Your task to perform on an android device: turn on bluetooth scan Image 0: 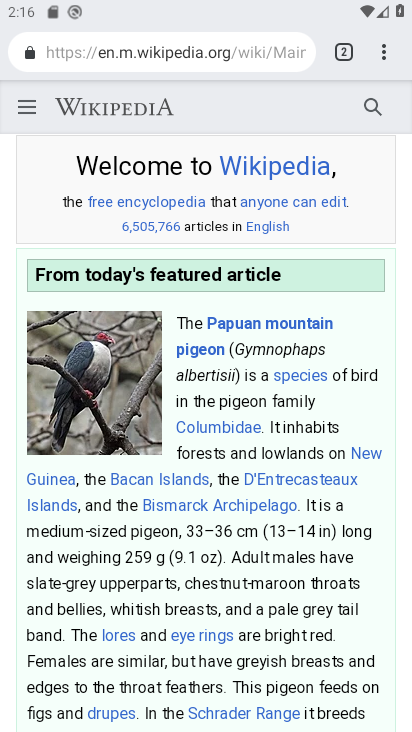
Step 0: press home button
Your task to perform on an android device: turn on bluetooth scan Image 1: 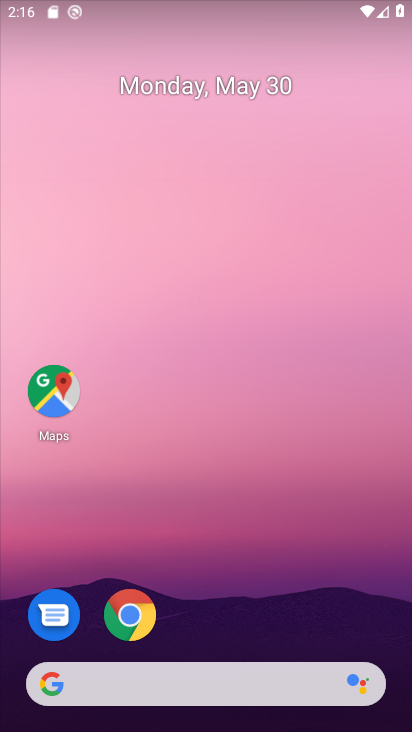
Step 1: drag from (224, 610) to (255, 0)
Your task to perform on an android device: turn on bluetooth scan Image 2: 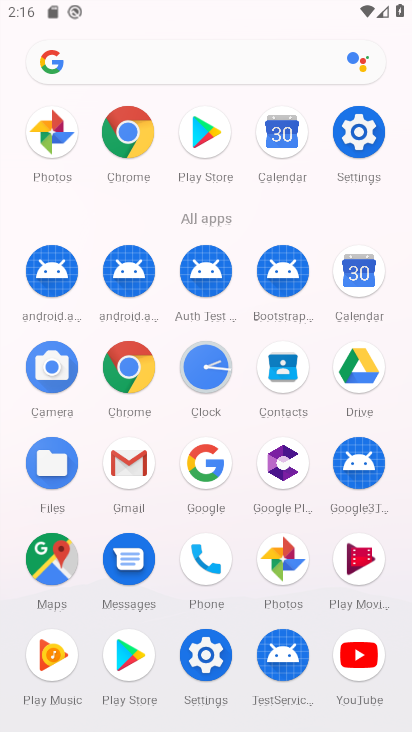
Step 2: click (352, 128)
Your task to perform on an android device: turn on bluetooth scan Image 3: 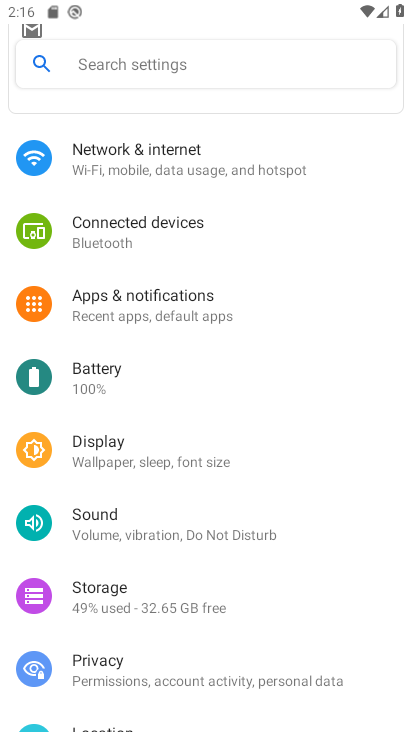
Step 3: drag from (192, 523) to (234, 335)
Your task to perform on an android device: turn on bluetooth scan Image 4: 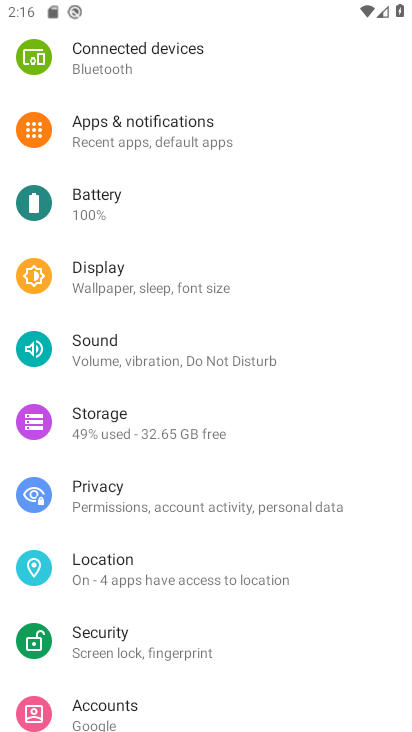
Step 4: click (186, 580)
Your task to perform on an android device: turn on bluetooth scan Image 5: 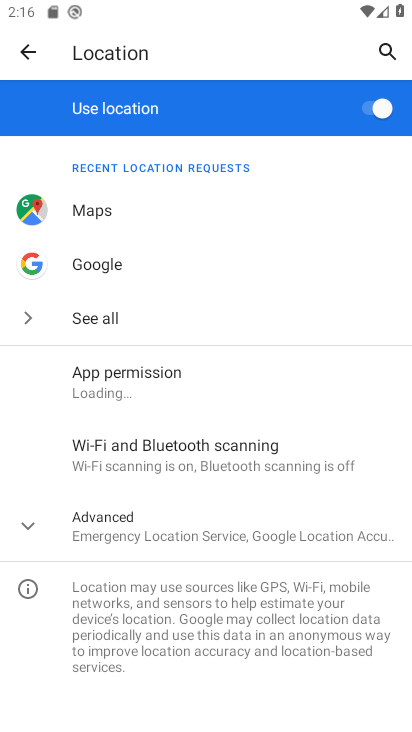
Step 5: click (271, 455)
Your task to perform on an android device: turn on bluetooth scan Image 6: 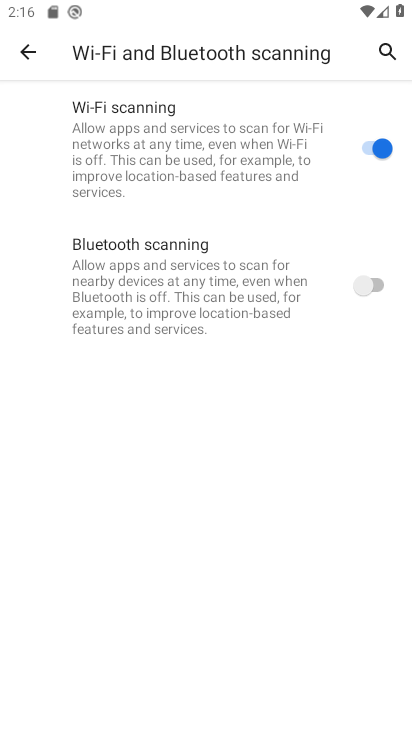
Step 6: click (374, 275)
Your task to perform on an android device: turn on bluetooth scan Image 7: 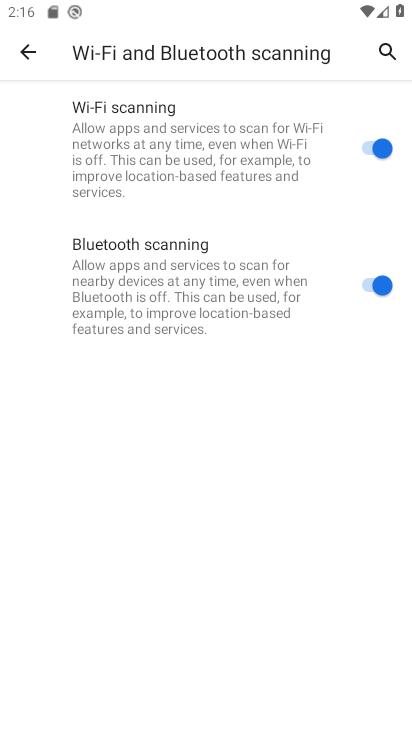
Step 7: task complete